Your task to perform on an android device: turn off location history Image 0: 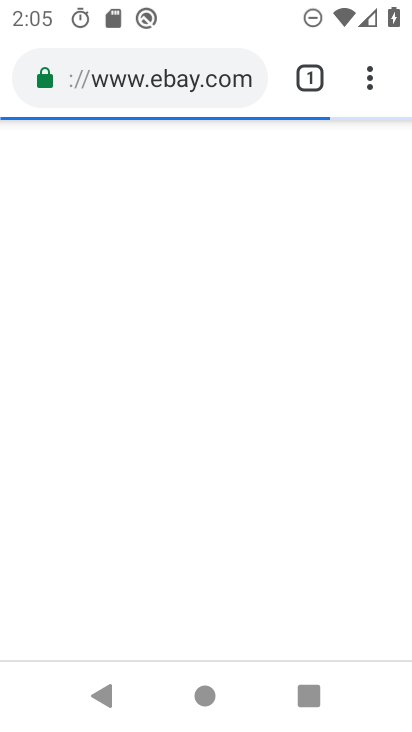
Step 0: press home button
Your task to perform on an android device: turn off location history Image 1: 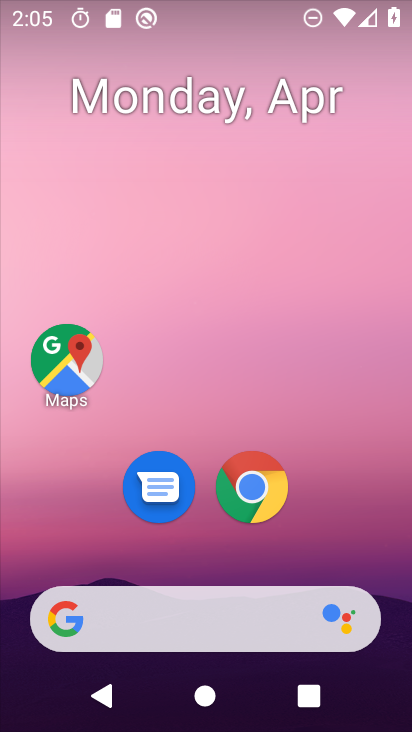
Step 1: drag from (273, 659) to (290, 183)
Your task to perform on an android device: turn off location history Image 2: 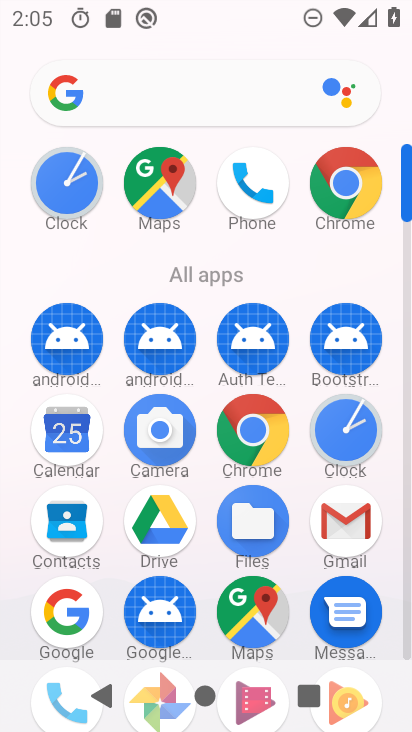
Step 2: drag from (111, 476) to (103, 313)
Your task to perform on an android device: turn off location history Image 3: 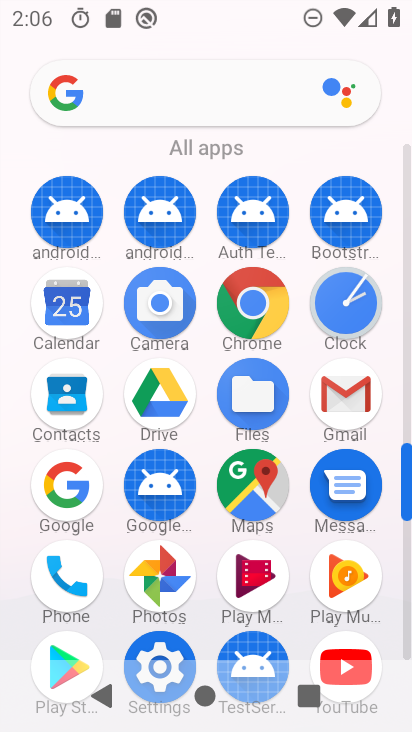
Step 3: click (152, 647)
Your task to perform on an android device: turn off location history Image 4: 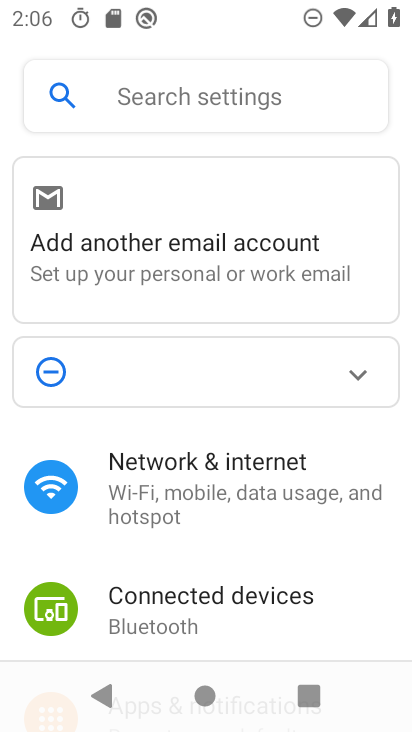
Step 4: click (155, 110)
Your task to perform on an android device: turn off location history Image 5: 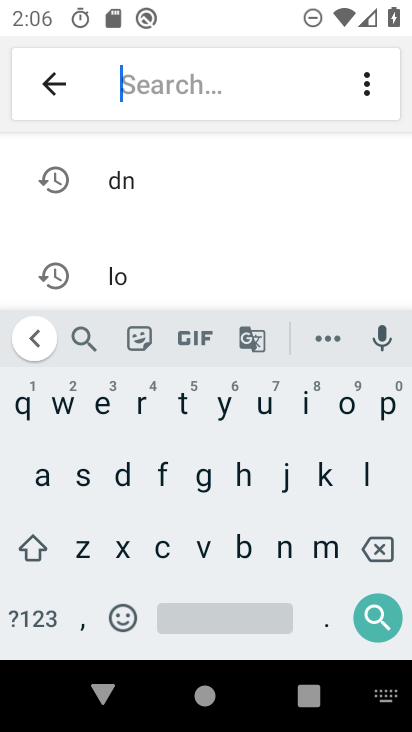
Step 5: click (128, 282)
Your task to perform on an android device: turn off location history Image 6: 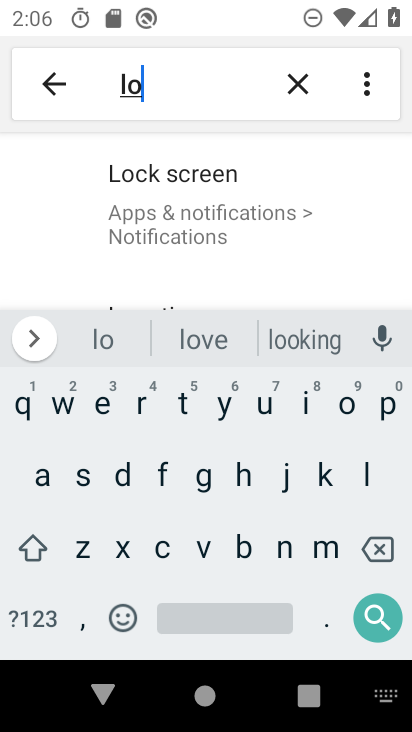
Step 6: press back button
Your task to perform on an android device: turn off location history Image 7: 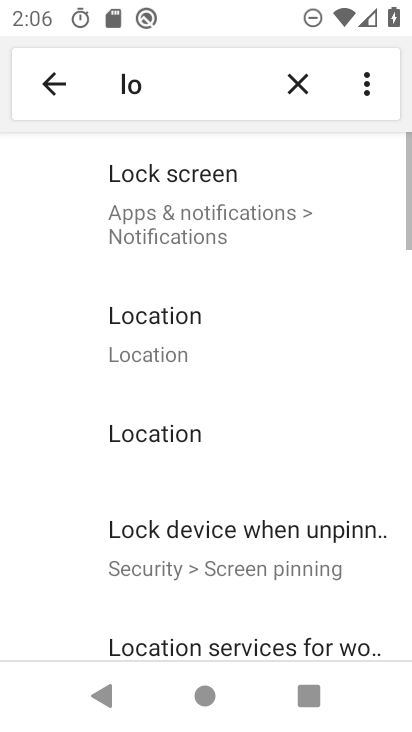
Step 7: click (176, 349)
Your task to perform on an android device: turn off location history Image 8: 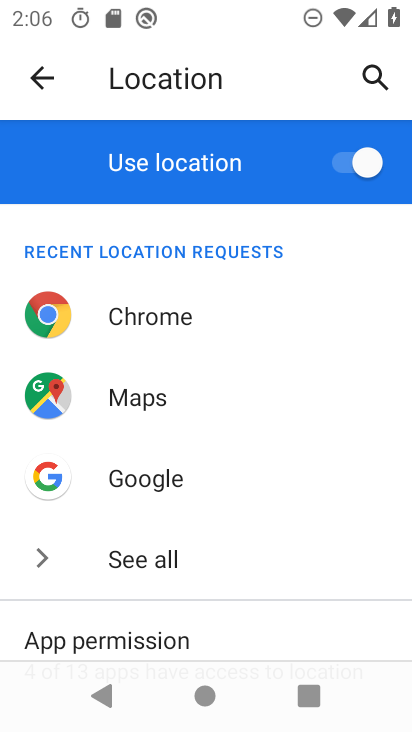
Step 8: drag from (249, 545) to (246, 237)
Your task to perform on an android device: turn off location history Image 9: 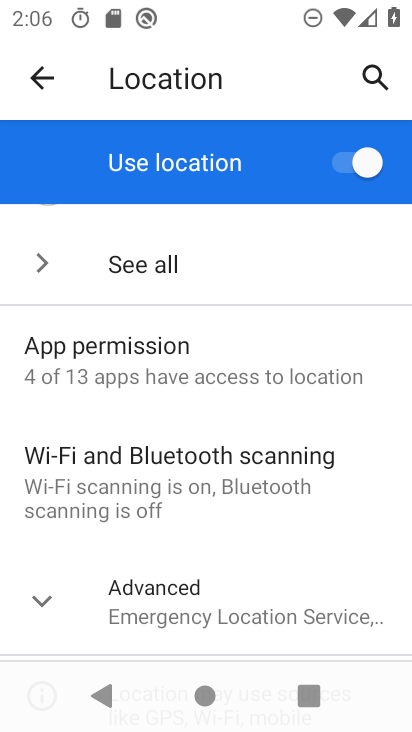
Step 9: drag from (208, 524) to (248, 265)
Your task to perform on an android device: turn off location history Image 10: 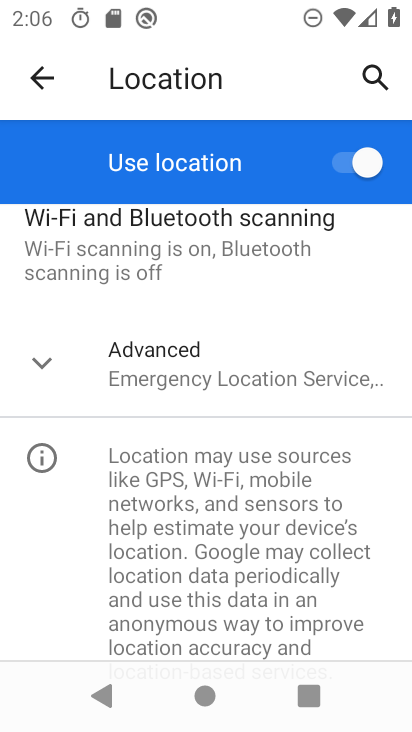
Step 10: click (78, 363)
Your task to perform on an android device: turn off location history Image 11: 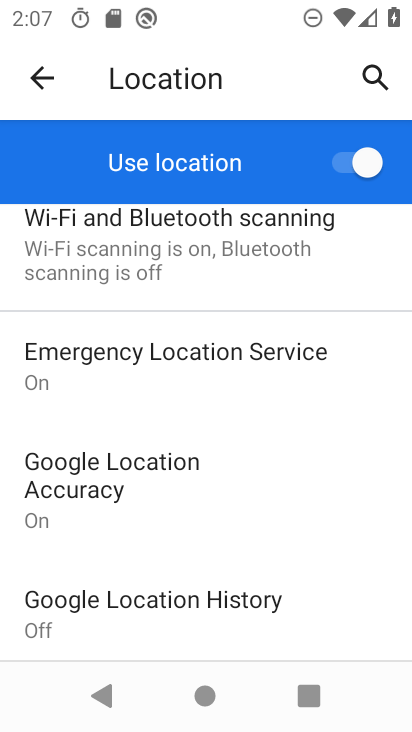
Step 11: click (166, 595)
Your task to perform on an android device: turn off location history Image 12: 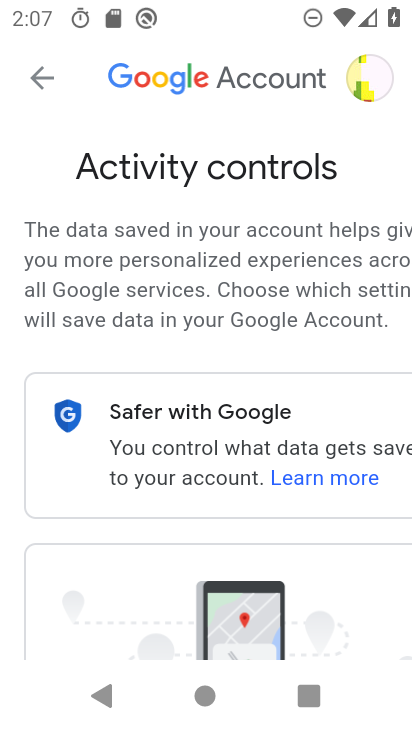
Step 12: drag from (200, 573) to (204, 415)
Your task to perform on an android device: turn off location history Image 13: 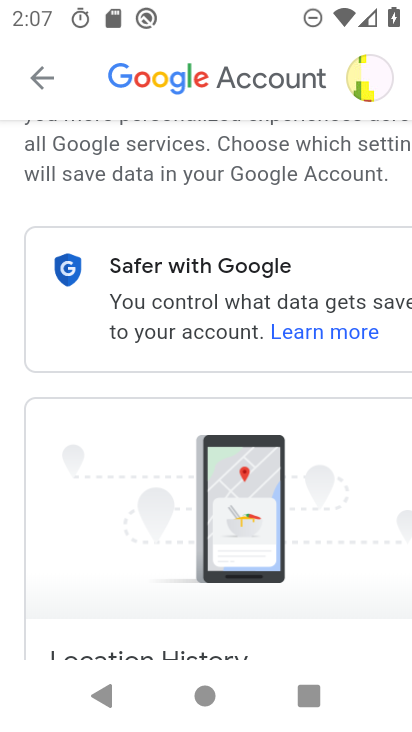
Step 13: drag from (218, 494) to (194, 308)
Your task to perform on an android device: turn off location history Image 14: 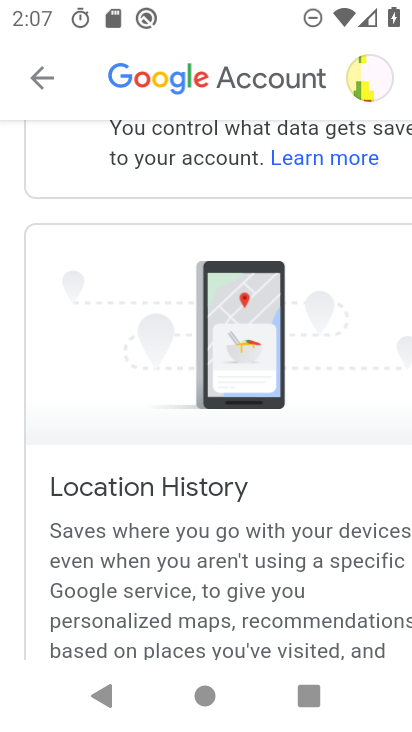
Step 14: drag from (242, 614) to (228, 389)
Your task to perform on an android device: turn off location history Image 15: 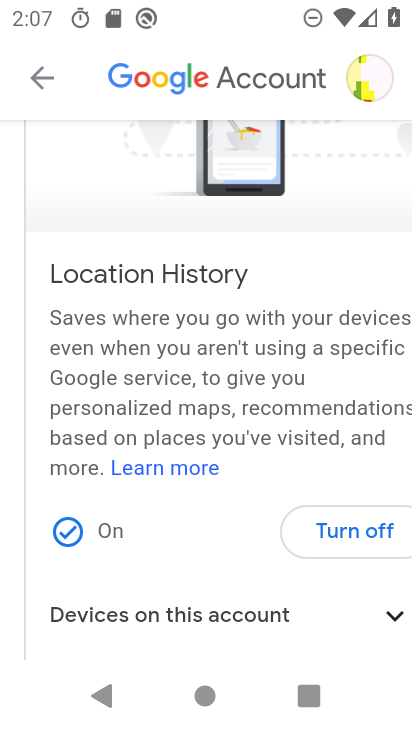
Step 15: drag from (218, 465) to (196, 360)
Your task to perform on an android device: turn off location history Image 16: 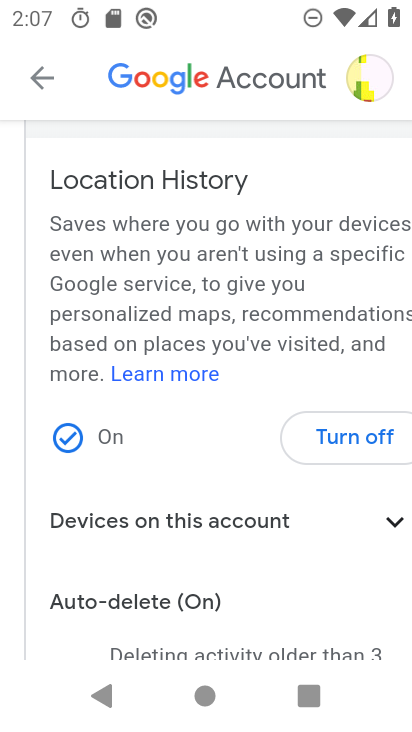
Step 16: click (314, 432)
Your task to perform on an android device: turn off location history Image 17: 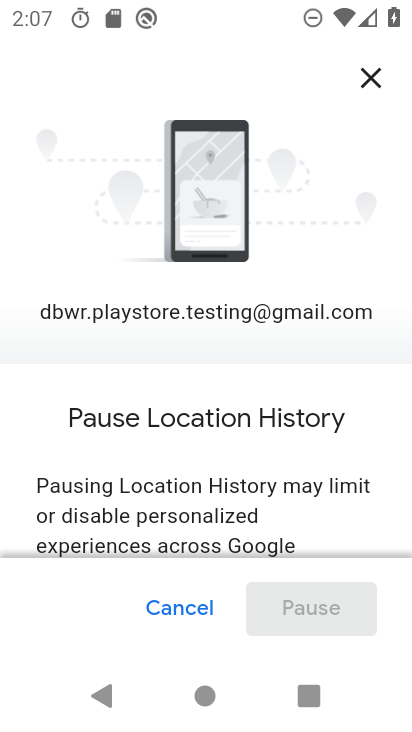
Step 17: task complete